Your task to perform on an android device: create a new album in the google photos Image 0: 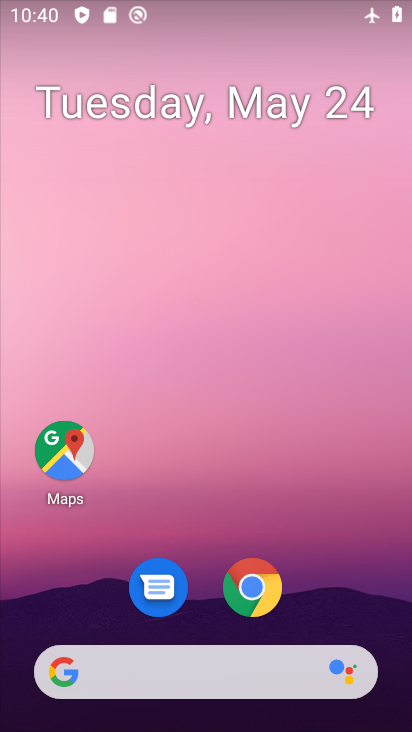
Step 0: drag from (356, 625) to (179, 4)
Your task to perform on an android device: create a new album in the google photos Image 1: 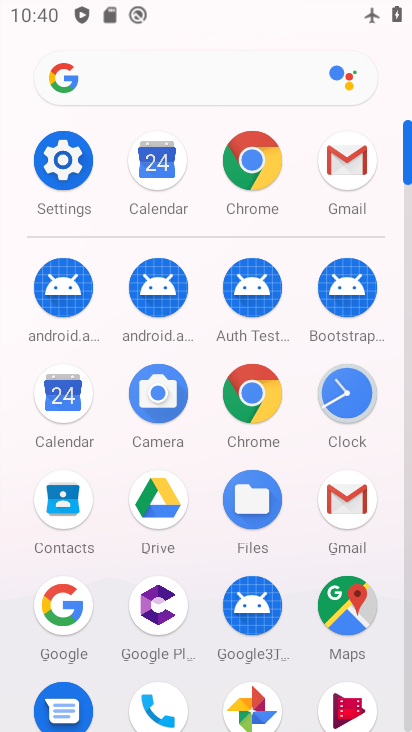
Step 1: click (262, 707)
Your task to perform on an android device: create a new album in the google photos Image 2: 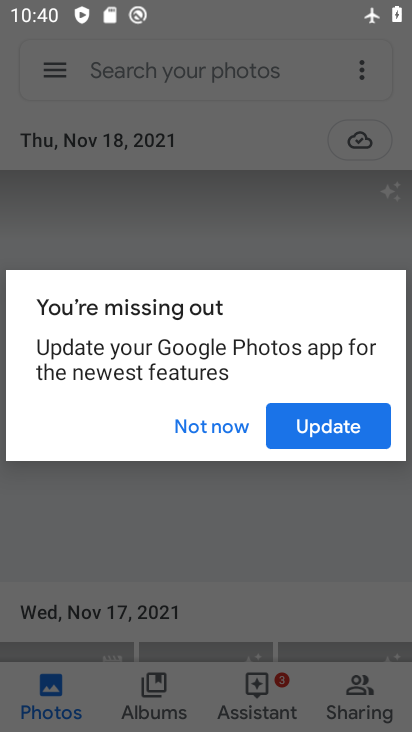
Step 2: click (335, 432)
Your task to perform on an android device: create a new album in the google photos Image 3: 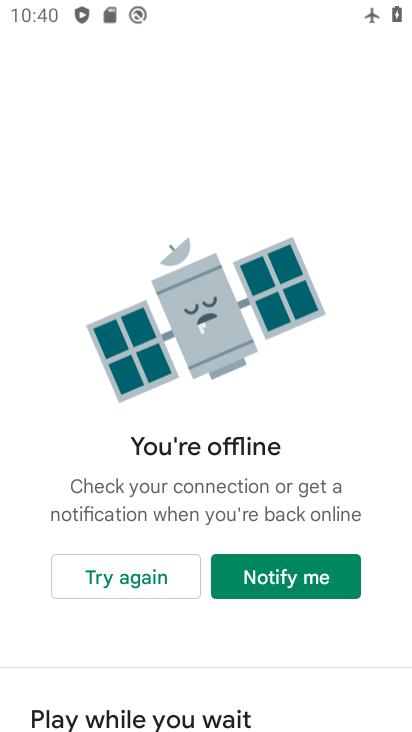
Step 3: task complete